Your task to perform on an android device: open wifi settings Image 0: 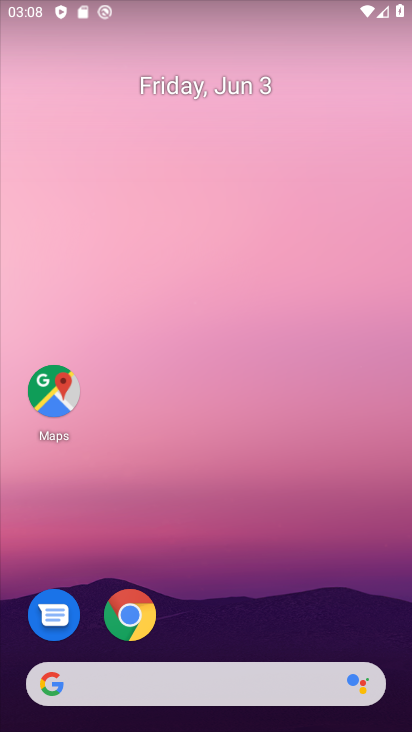
Step 0: drag from (274, 632) to (250, 96)
Your task to perform on an android device: open wifi settings Image 1: 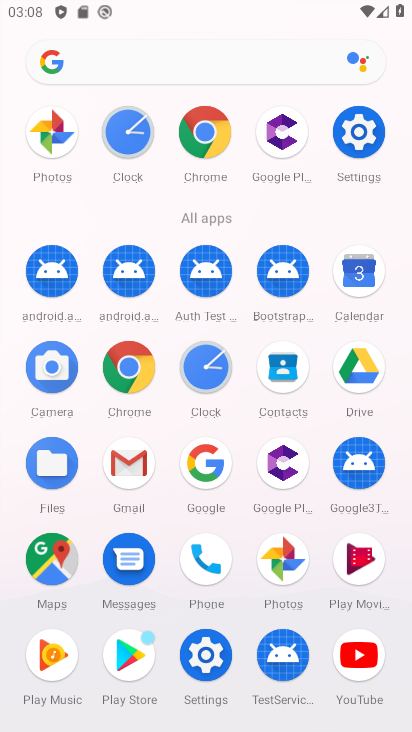
Step 1: click (366, 137)
Your task to perform on an android device: open wifi settings Image 2: 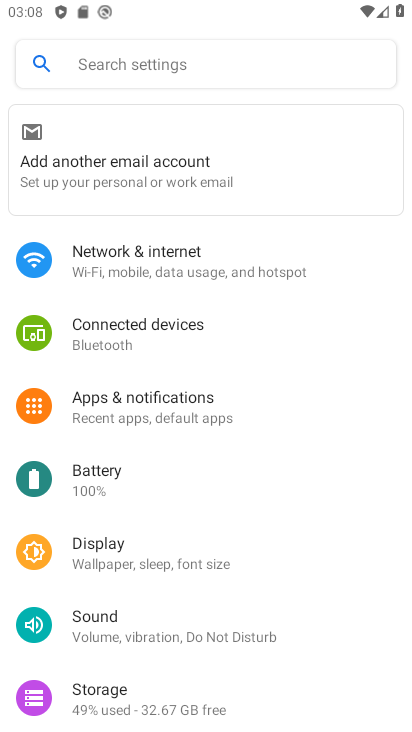
Step 2: click (297, 264)
Your task to perform on an android device: open wifi settings Image 3: 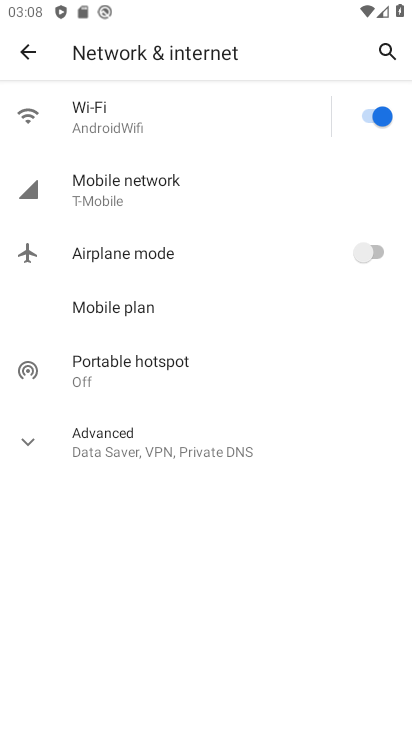
Step 3: click (253, 123)
Your task to perform on an android device: open wifi settings Image 4: 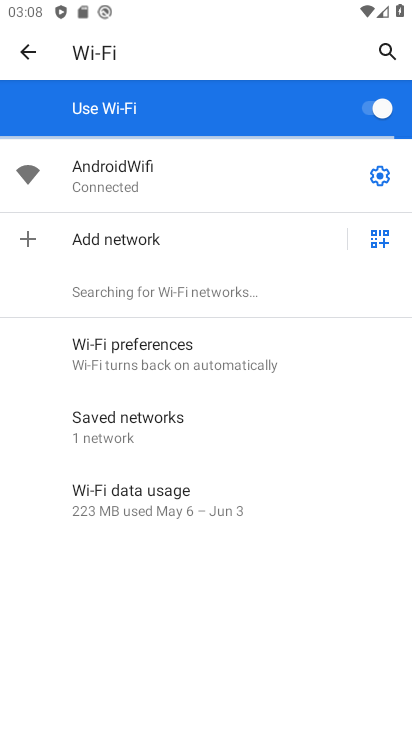
Step 4: task complete